Your task to perform on an android device: Search for Italian restaurants on Maps Image 0: 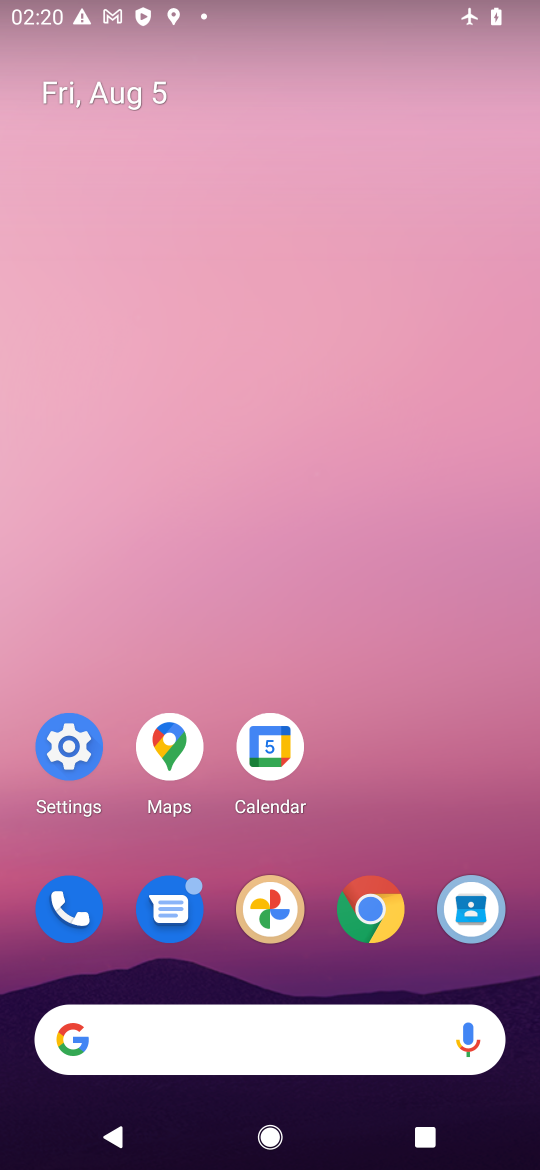
Step 0: click (158, 749)
Your task to perform on an android device: Search for Italian restaurants on Maps Image 1: 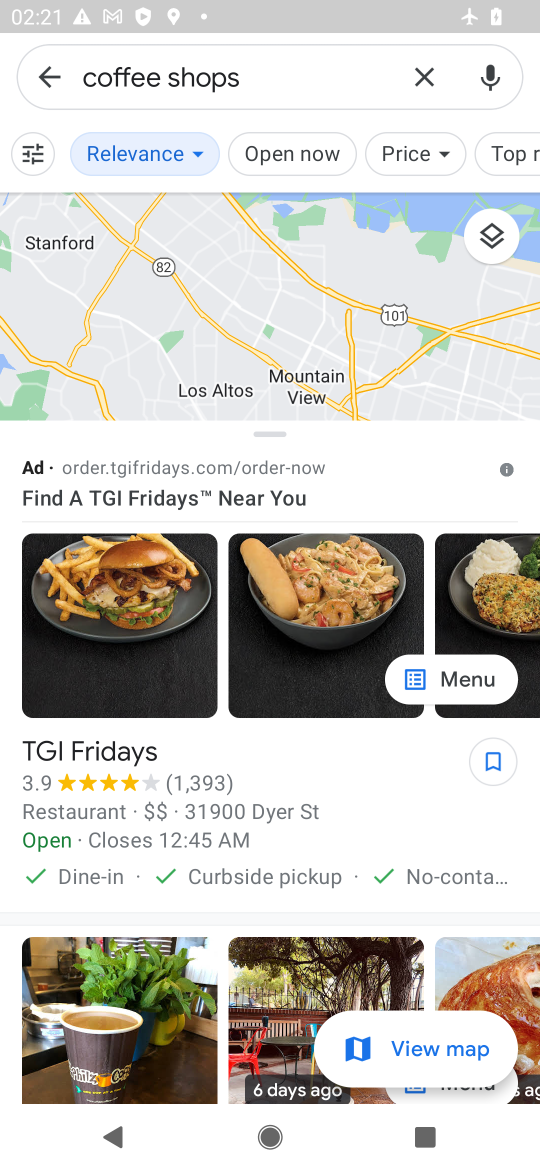
Step 1: click (425, 77)
Your task to perform on an android device: Search for Italian restaurants on Maps Image 2: 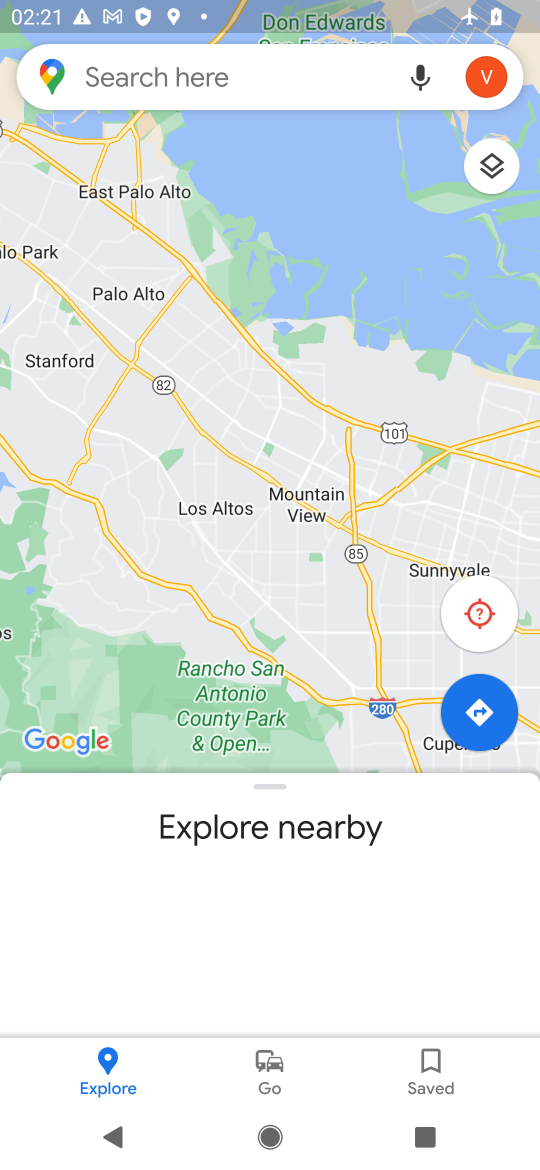
Step 2: click (297, 84)
Your task to perform on an android device: Search for Italian restaurants on Maps Image 3: 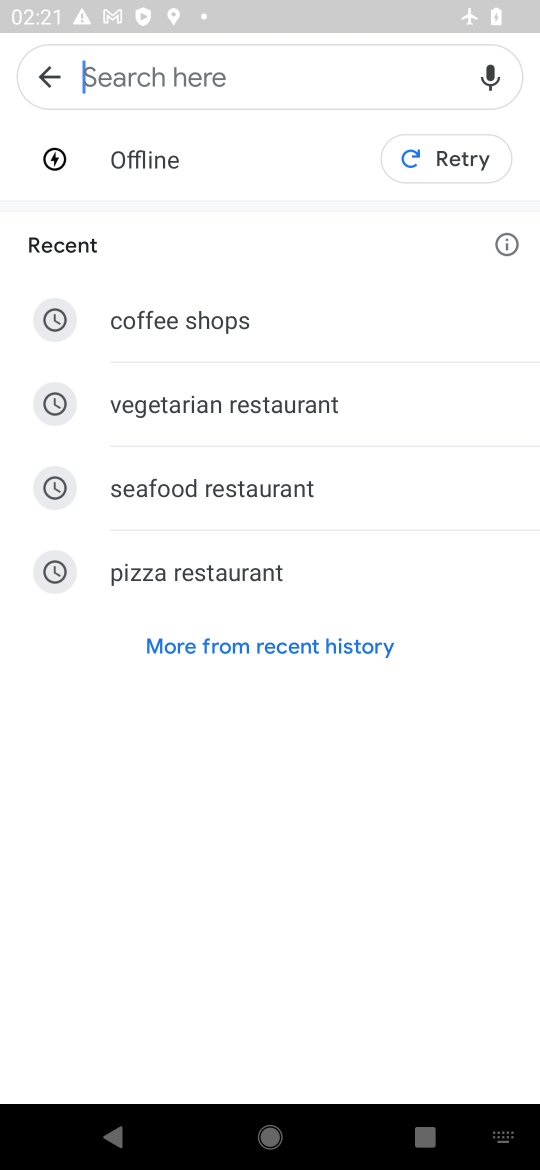
Step 3: type "italian"
Your task to perform on an android device: Search for Italian restaurants on Maps Image 4: 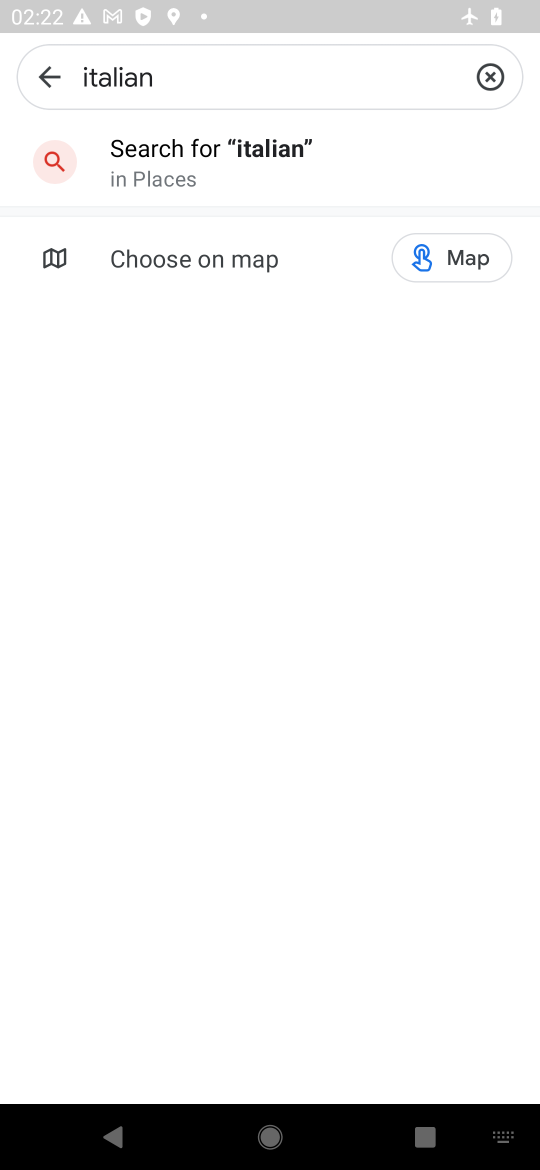
Step 4: task complete